Your task to perform on an android device: Go to Android settings Image 0: 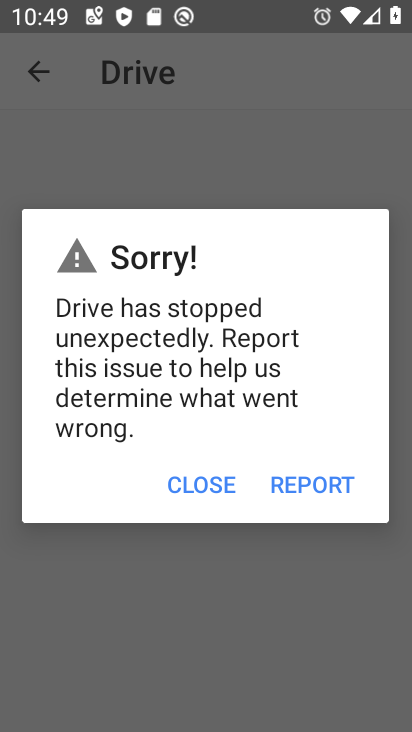
Step 0: press home button
Your task to perform on an android device: Go to Android settings Image 1: 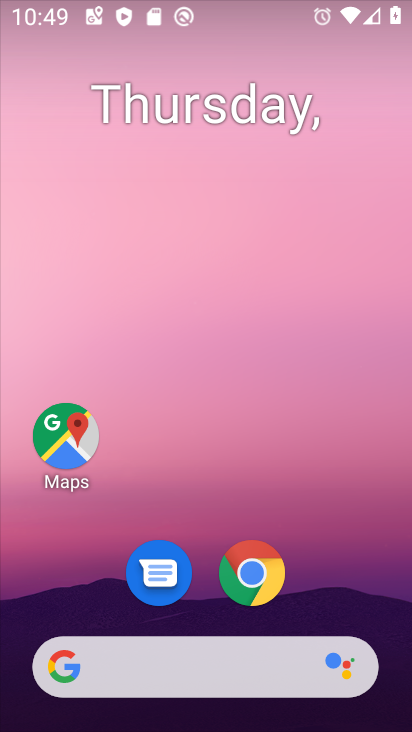
Step 1: drag from (329, 606) to (315, 208)
Your task to perform on an android device: Go to Android settings Image 2: 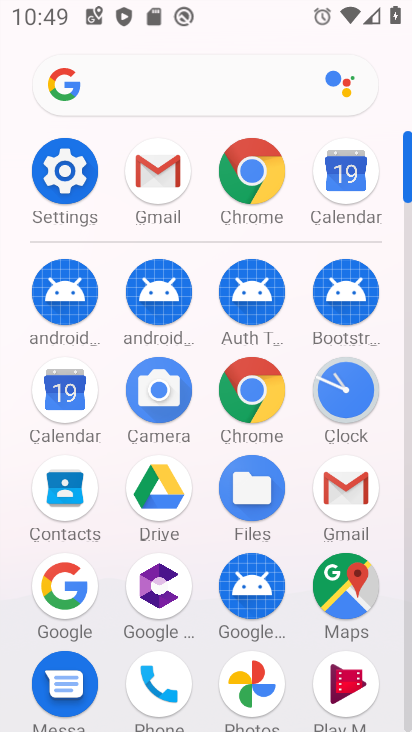
Step 2: click (59, 185)
Your task to perform on an android device: Go to Android settings Image 3: 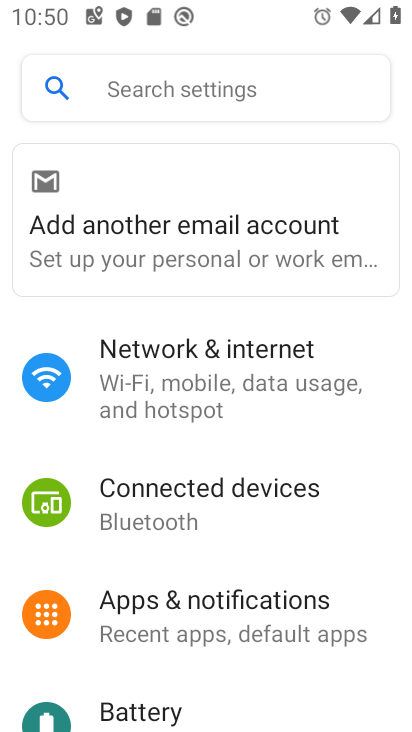
Step 3: task complete